Your task to perform on an android device: Open the map Image 0: 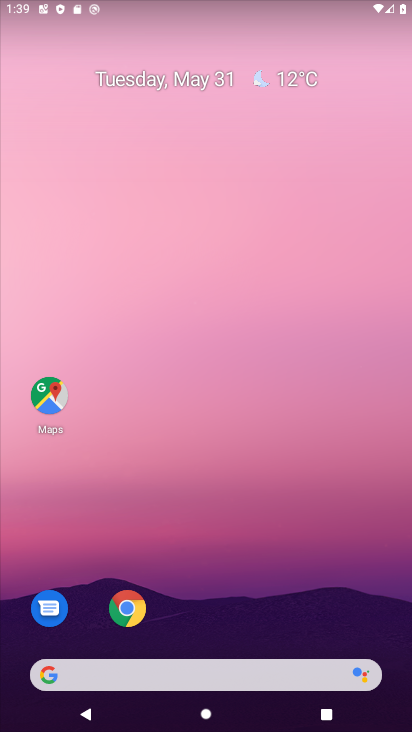
Step 0: drag from (291, 523) to (291, 308)
Your task to perform on an android device: Open the map Image 1: 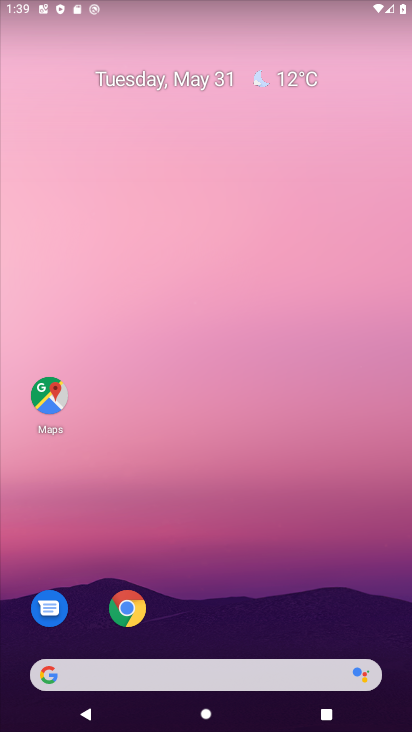
Step 1: drag from (263, 399) to (247, 251)
Your task to perform on an android device: Open the map Image 2: 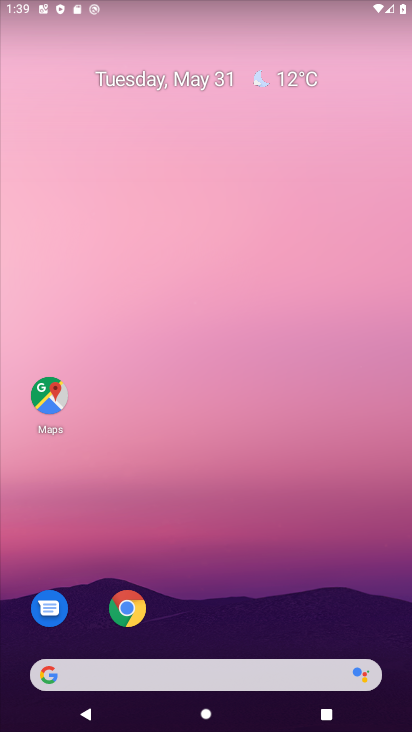
Step 2: drag from (276, 604) to (258, 228)
Your task to perform on an android device: Open the map Image 3: 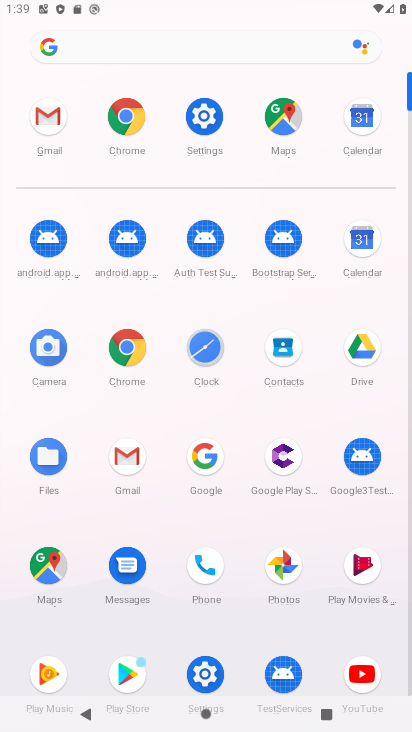
Step 3: click (32, 569)
Your task to perform on an android device: Open the map Image 4: 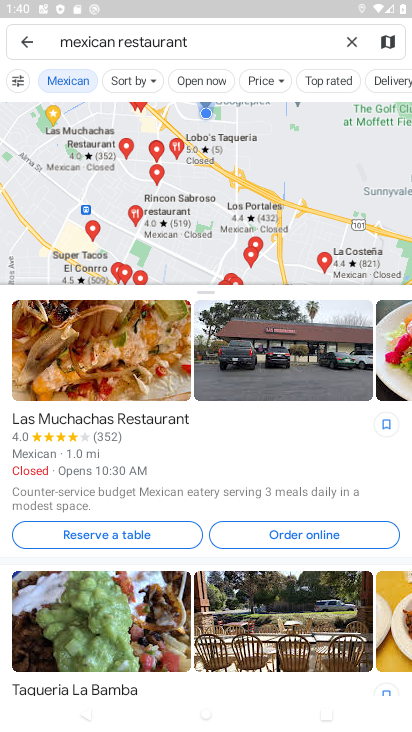
Step 4: task complete